Your task to perform on an android device: change your default location settings in chrome Image 0: 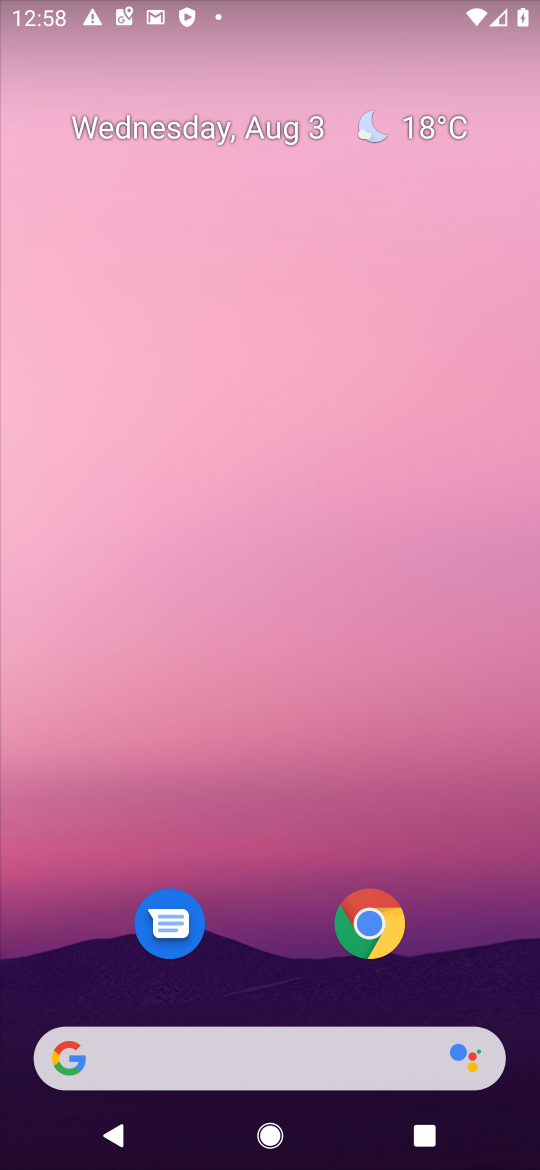
Step 0: drag from (385, 661) to (392, 176)
Your task to perform on an android device: change your default location settings in chrome Image 1: 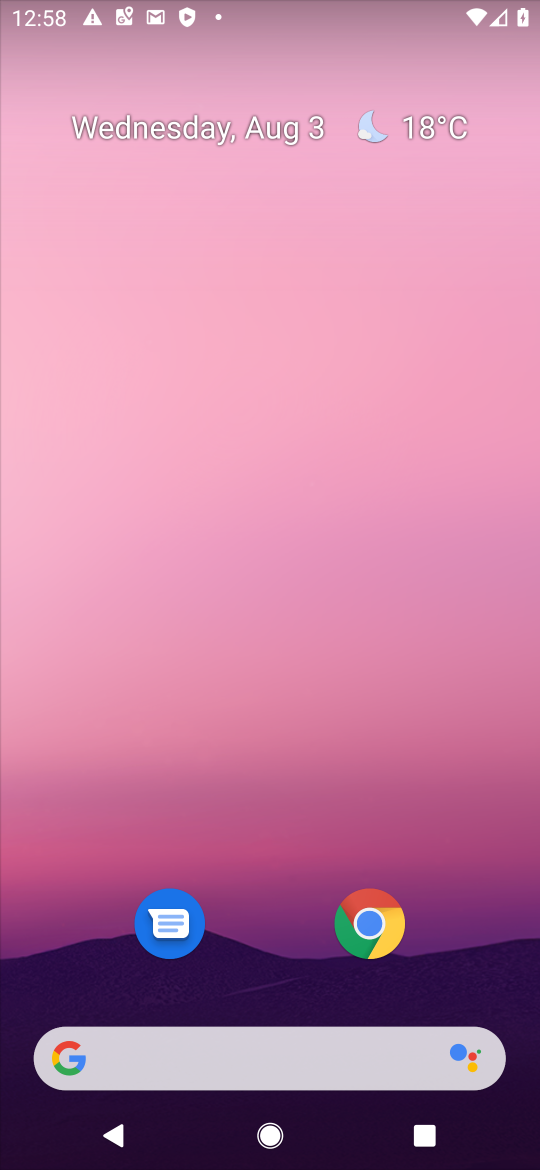
Step 1: drag from (264, 874) to (278, 178)
Your task to perform on an android device: change your default location settings in chrome Image 2: 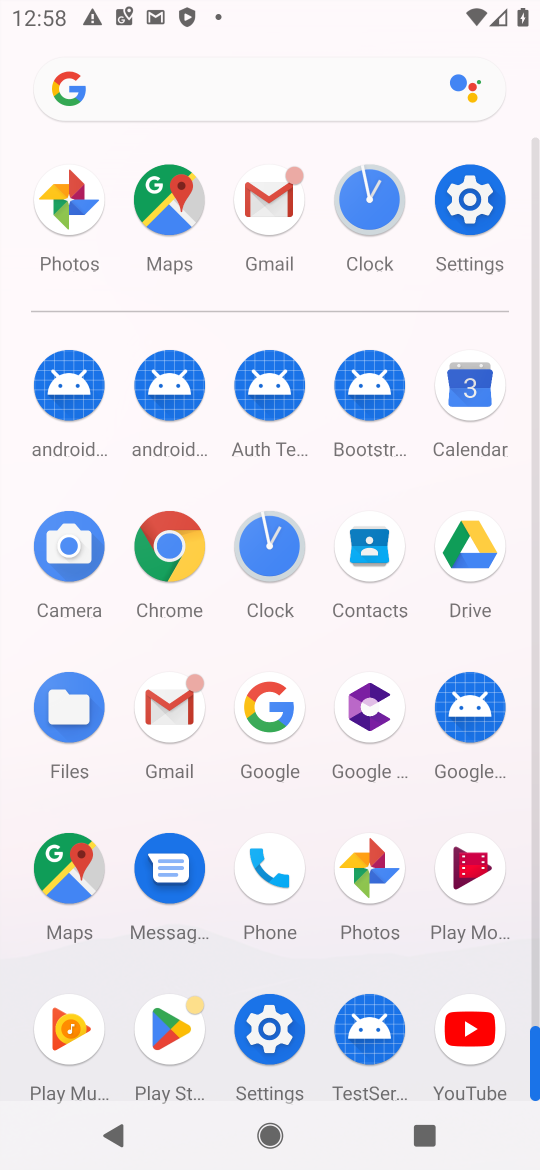
Step 2: click (172, 545)
Your task to perform on an android device: change your default location settings in chrome Image 3: 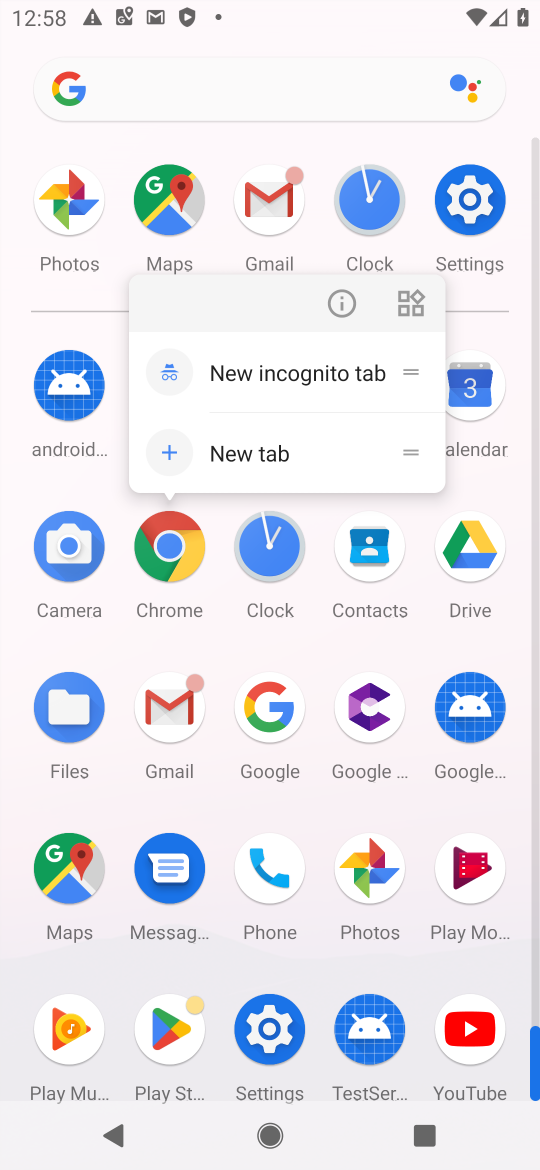
Step 3: click (342, 288)
Your task to perform on an android device: change your default location settings in chrome Image 4: 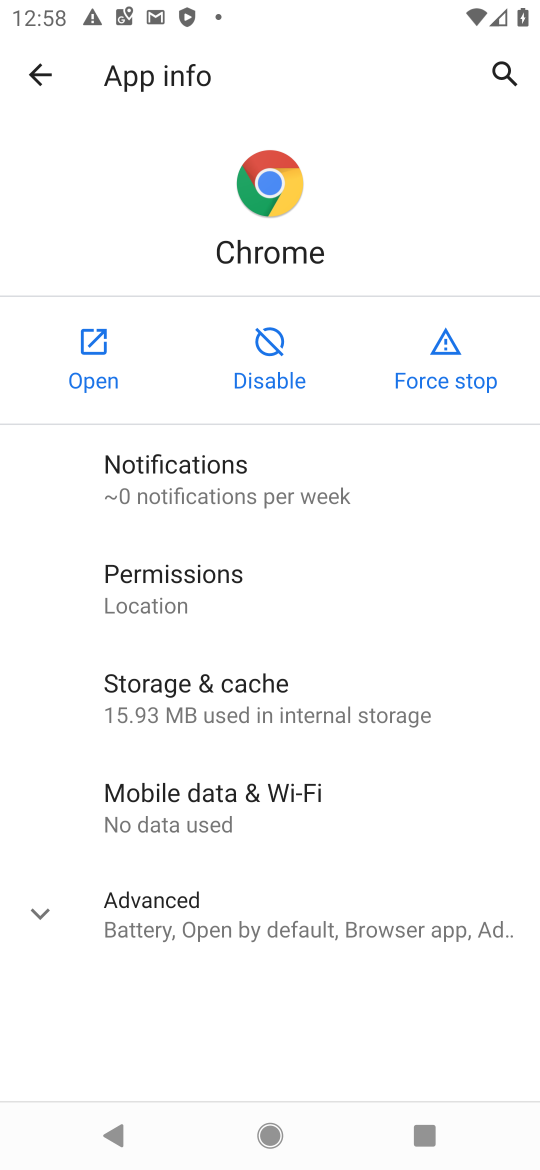
Step 4: click (93, 329)
Your task to perform on an android device: change your default location settings in chrome Image 5: 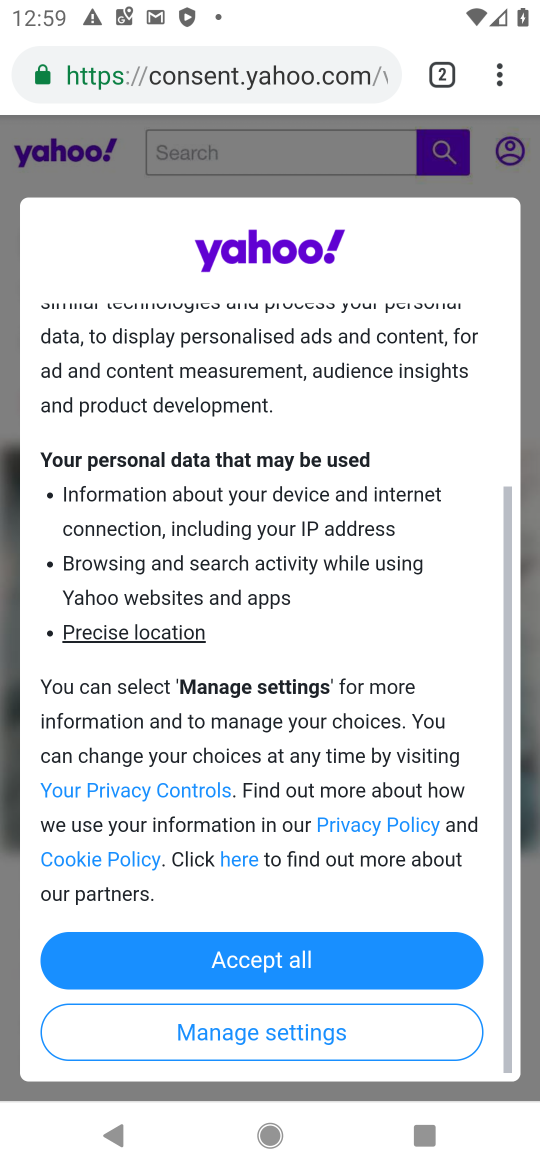
Step 5: drag from (255, 833) to (308, 471)
Your task to perform on an android device: change your default location settings in chrome Image 6: 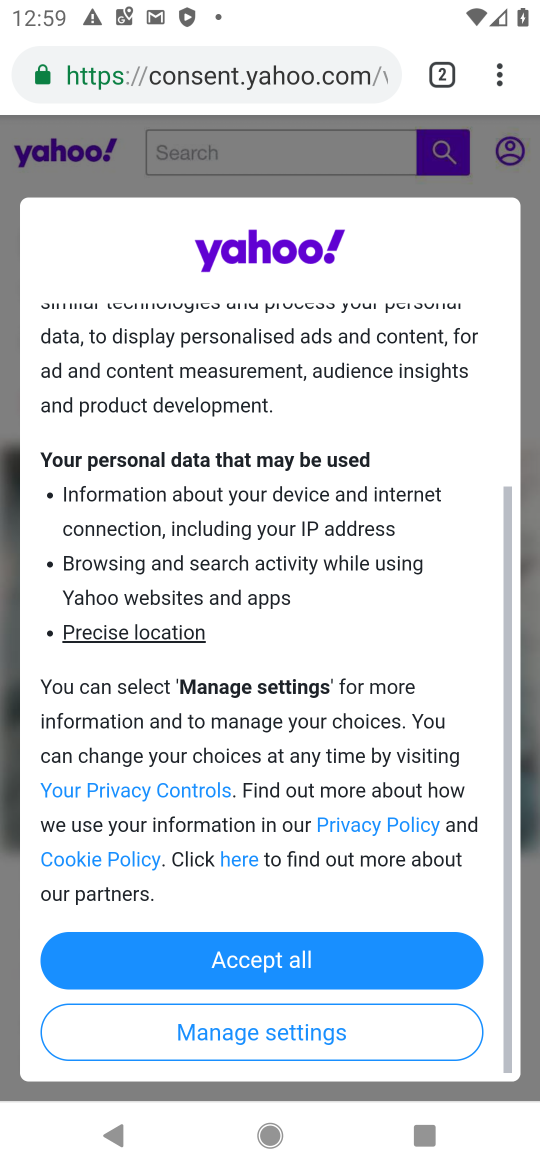
Step 6: drag from (277, 452) to (455, 1072)
Your task to perform on an android device: change your default location settings in chrome Image 7: 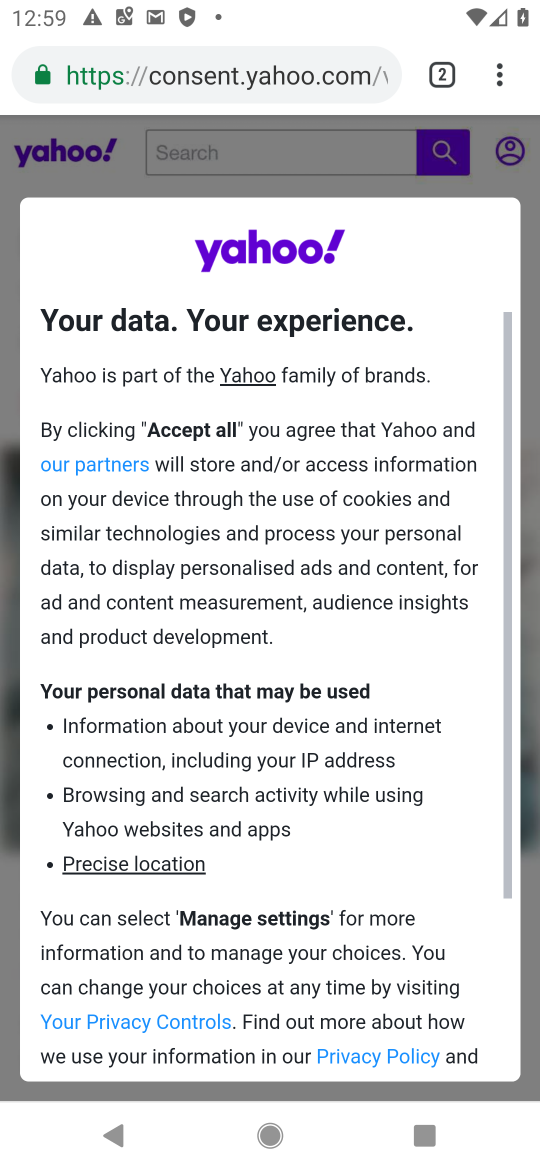
Step 7: drag from (274, 876) to (253, 296)
Your task to perform on an android device: change your default location settings in chrome Image 8: 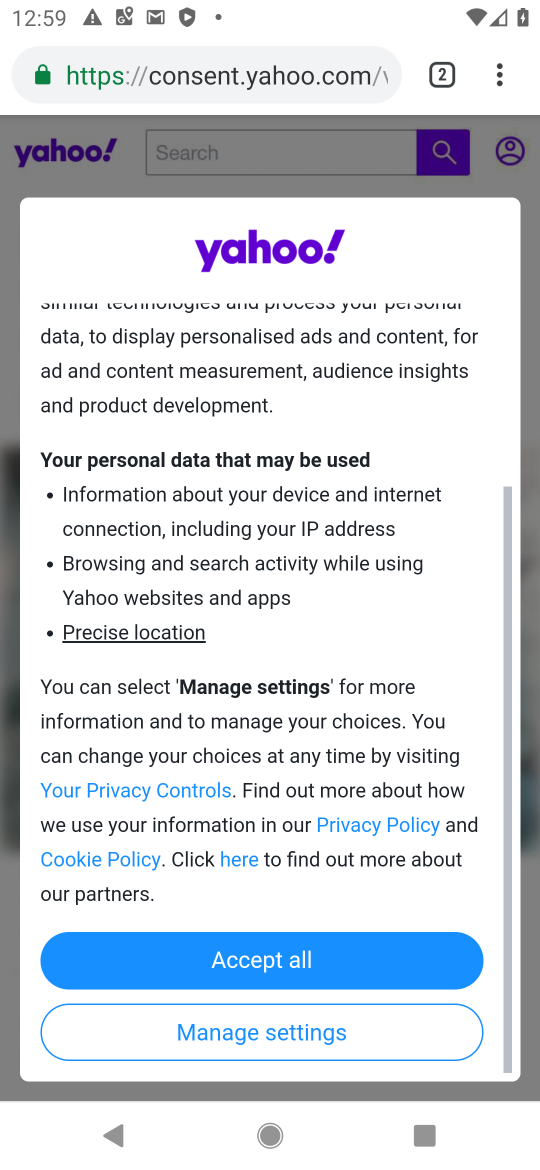
Step 8: drag from (265, 882) to (241, 479)
Your task to perform on an android device: change your default location settings in chrome Image 9: 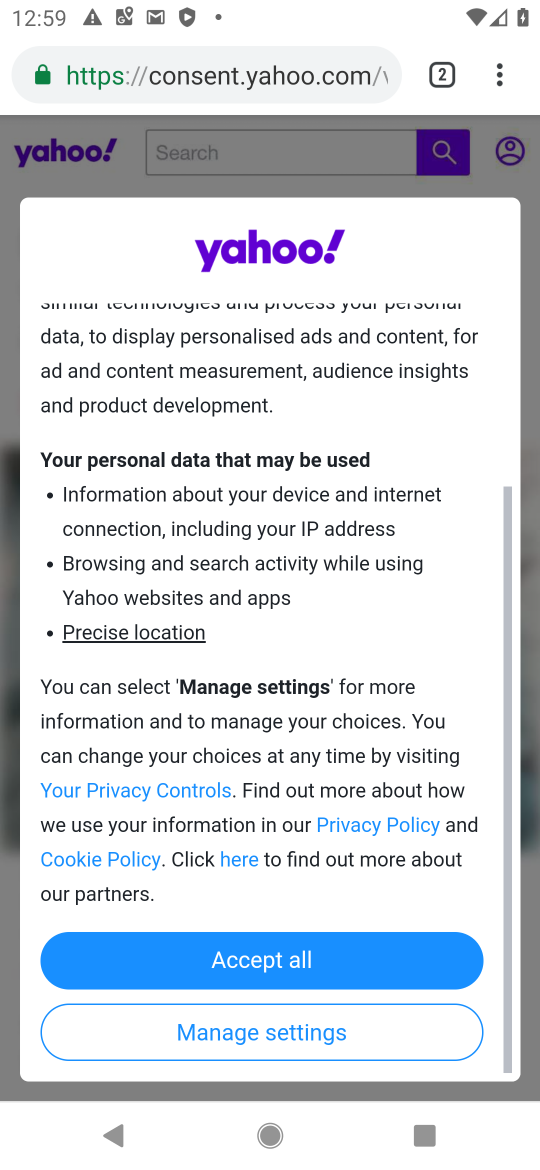
Step 9: drag from (306, 428) to (387, 1102)
Your task to perform on an android device: change your default location settings in chrome Image 10: 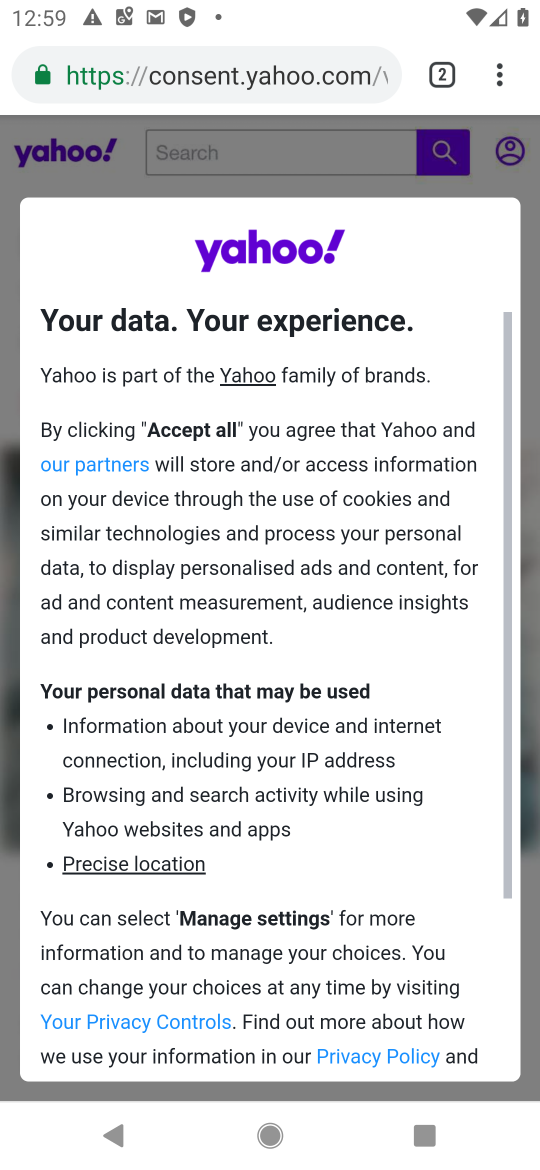
Step 10: drag from (405, 948) to (299, 470)
Your task to perform on an android device: change your default location settings in chrome Image 11: 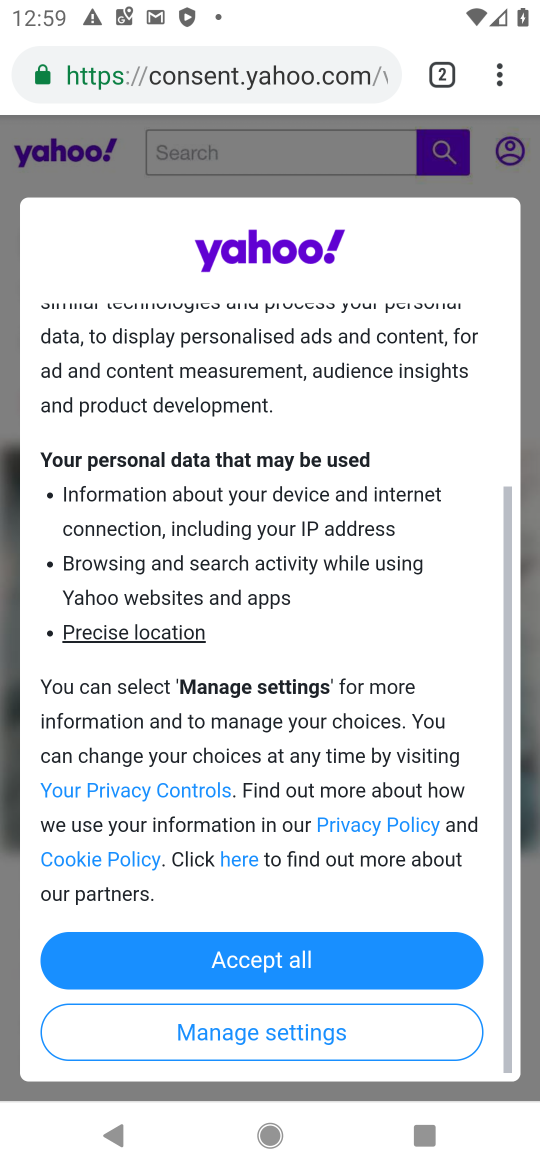
Step 11: drag from (293, 487) to (317, 921)
Your task to perform on an android device: change your default location settings in chrome Image 12: 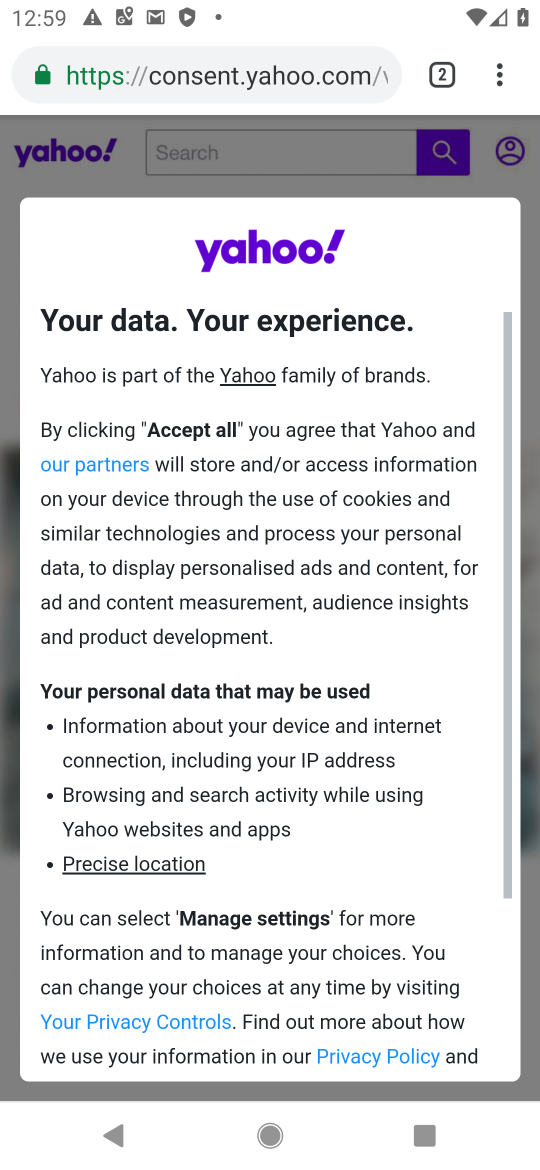
Step 12: drag from (301, 848) to (308, 263)
Your task to perform on an android device: change your default location settings in chrome Image 13: 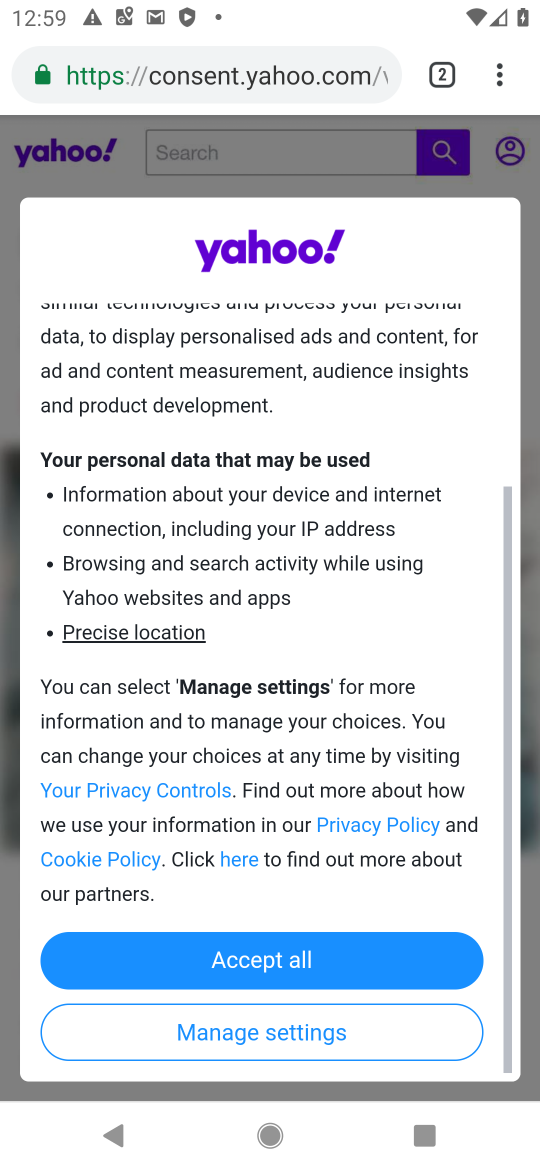
Step 13: drag from (303, 806) to (313, 355)
Your task to perform on an android device: change your default location settings in chrome Image 14: 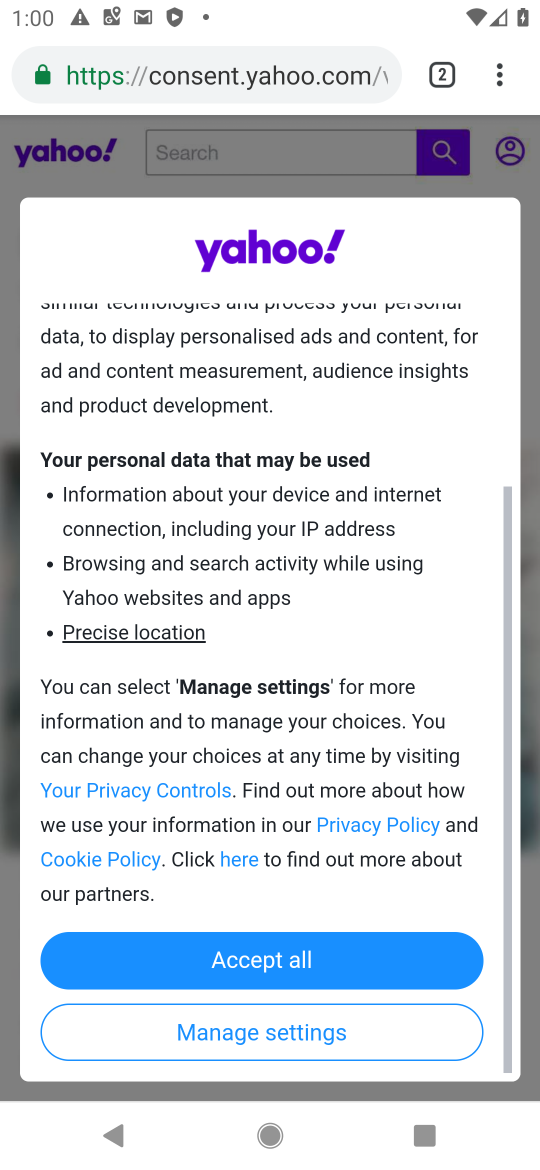
Step 14: drag from (490, 79) to (307, 984)
Your task to perform on an android device: change your default location settings in chrome Image 15: 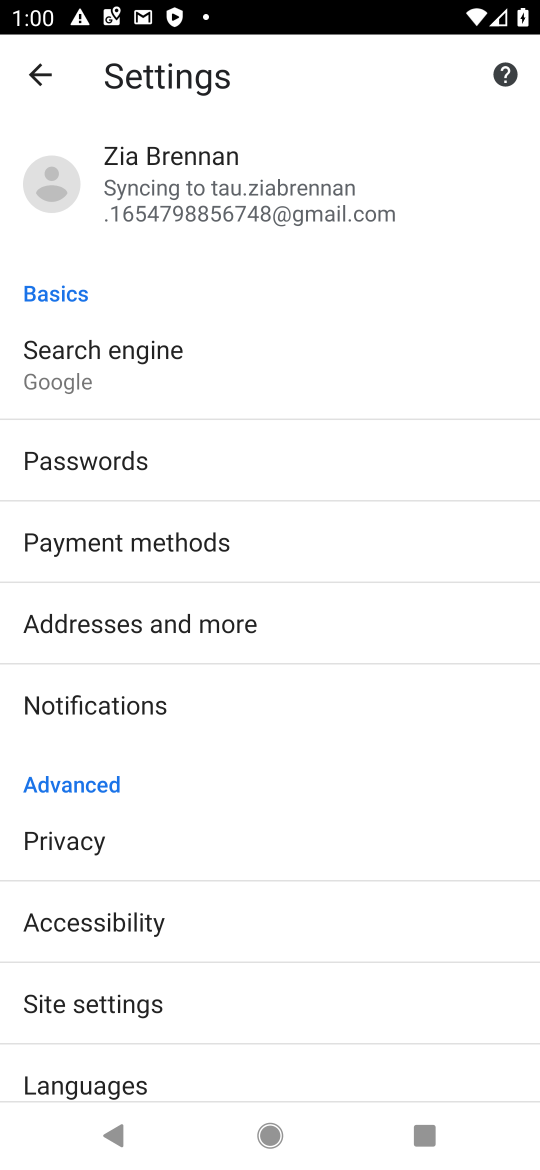
Step 15: drag from (225, 916) to (260, 279)
Your task to perform on an android device: change your default location settings in chrome Image 16: 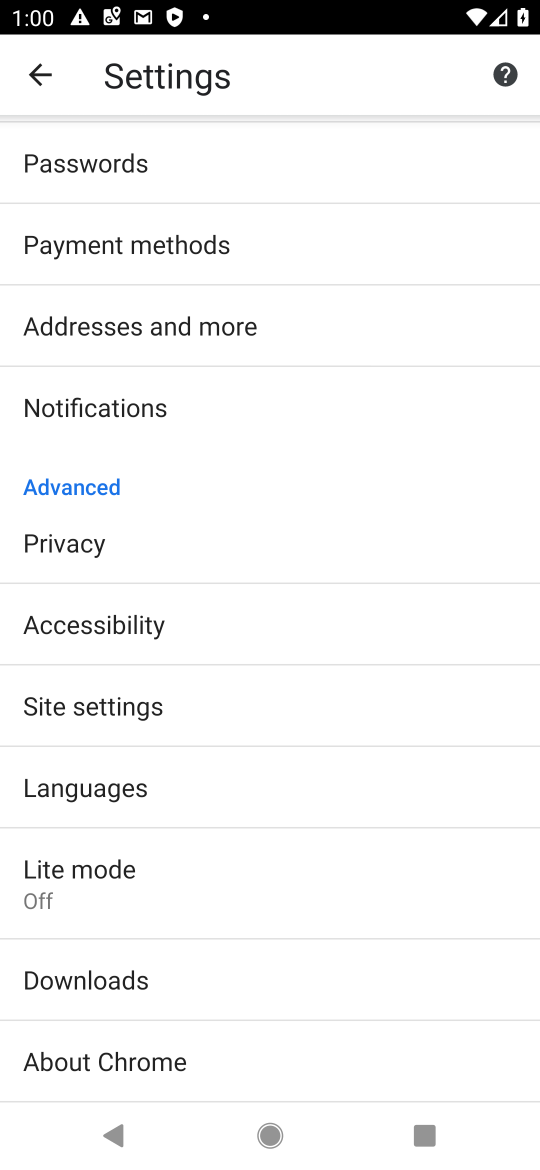
Step 16: click (191, 710)
Your task to perform on an android device: change your default location settings in chrome Image 17: 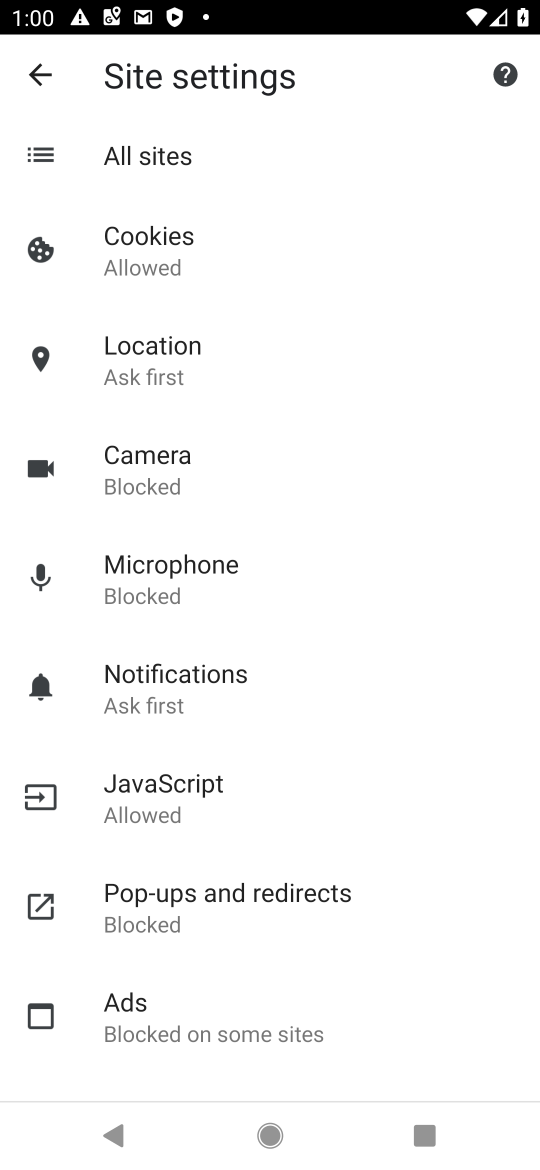
Step 17: click (129, 381)
Your task to perform on an android device: change your default location settings in chrome Image 18: 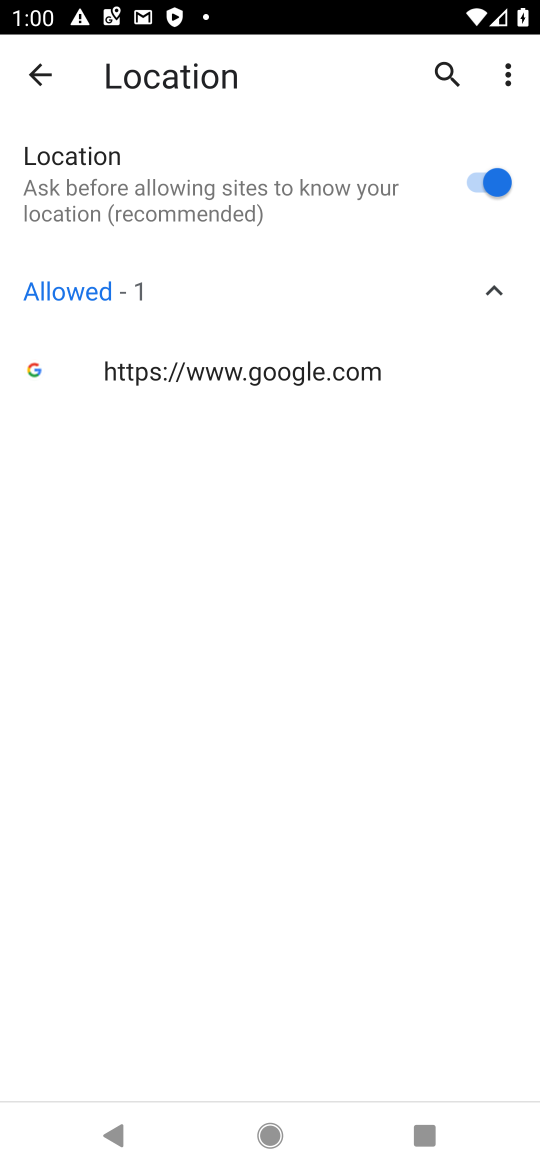
Step 18: click (481, 172)
Your task to perform on an android device: change your default location settings in chrome Image 19: 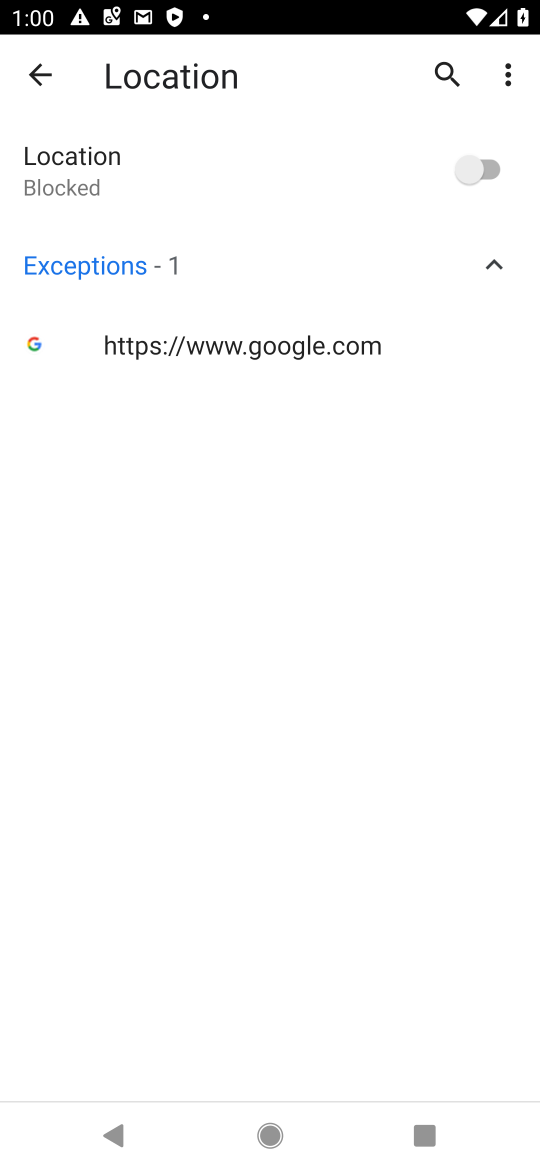
Step 19: task complete